Your task to perform on an android device: move an email to a new category in the gmail app Image 0: 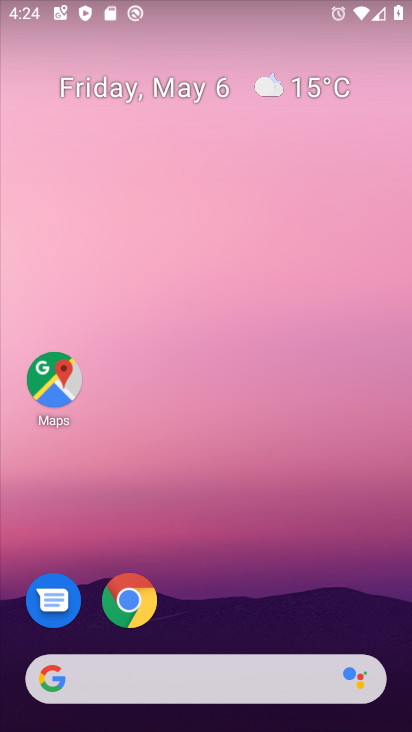
Step 0: drag from (221, 535) to (229, 0)
Your task to perform on an android device: move an email to a new category in the gmail app Image 1: 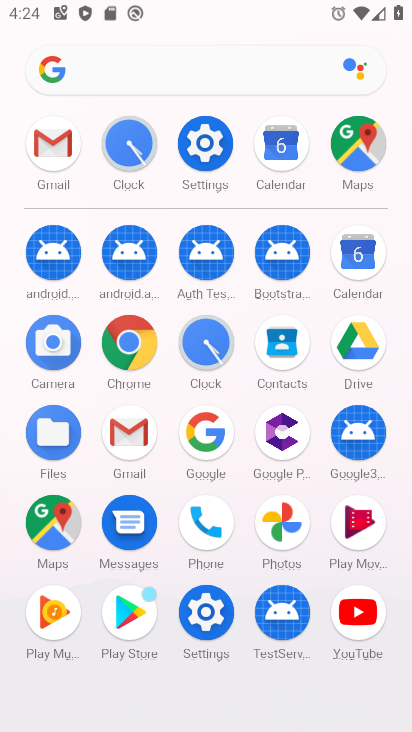
Step 1: click (131, 438)
Your task to perform on an android device: move an email to a new category in the gmail app Image 2: 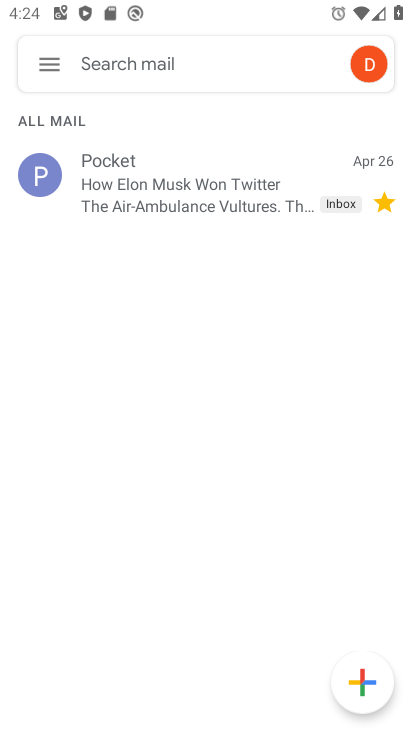
Step 2: click (51, 185)
Your task to perform on an android device: move an email to a new category in the gmail app Image 3: 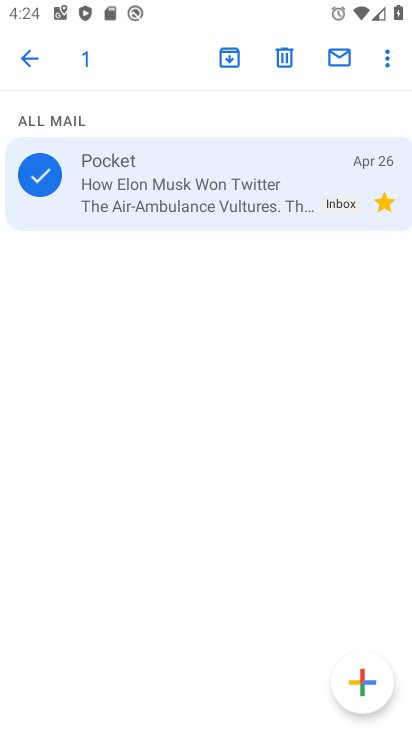
Step 3: click (377, 62)
Your task to perform on an android device: move an email to a new category in the gmail app Image 4: 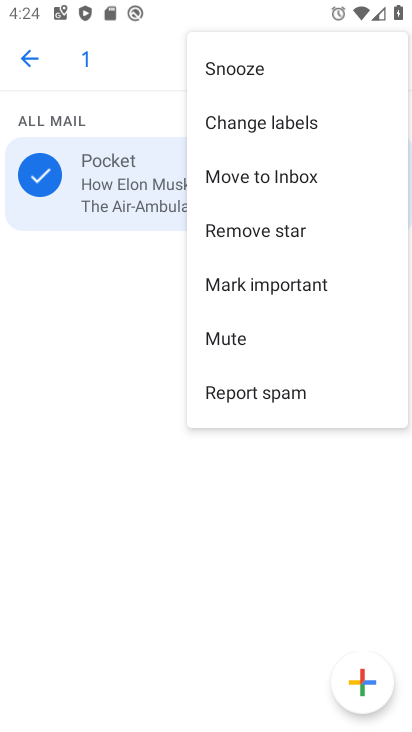
Step 4: click (297, 174)
Your task to perform on an android device: move an email to a new category in the gmail app Image 5: 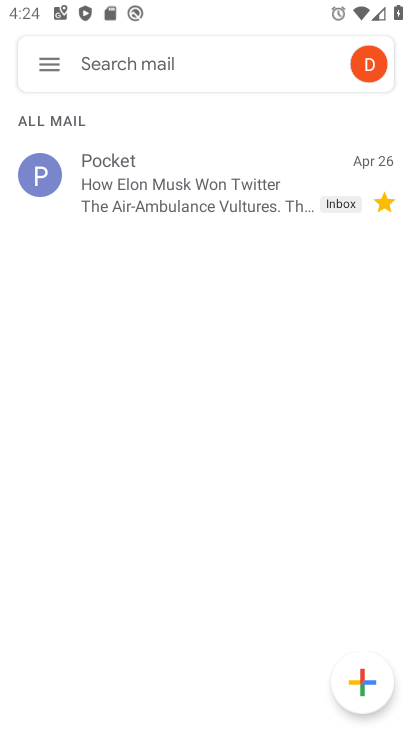
Step 5: task complete